Your task to perform on an android device: open the mobile data screen to see how much data has been used Image 0: 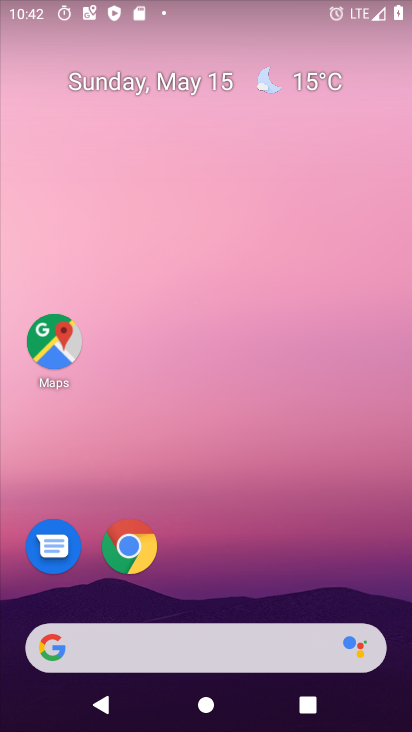
Step 0: drag from (296, 690) to (222, 153)
Your task to perform on an android device: open the mobile data screen to see how much data has been used Image 1: 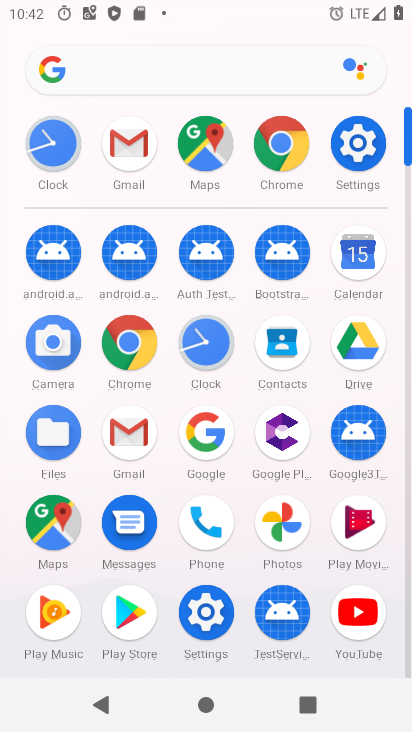
Step 1: click (354, 143)
Your task to perform on an android device: open the mobile data screen to see how much data has been used Image 2: 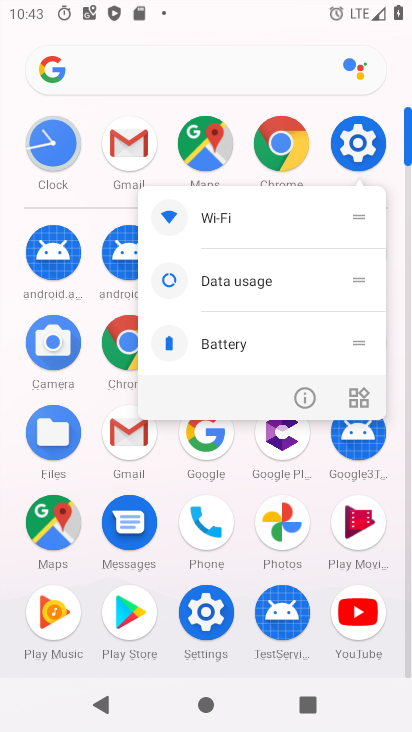
Step 2: click (350, 142)
Your task to perform on an android device: open the mobile data screen to see how much data has been used Image 3: 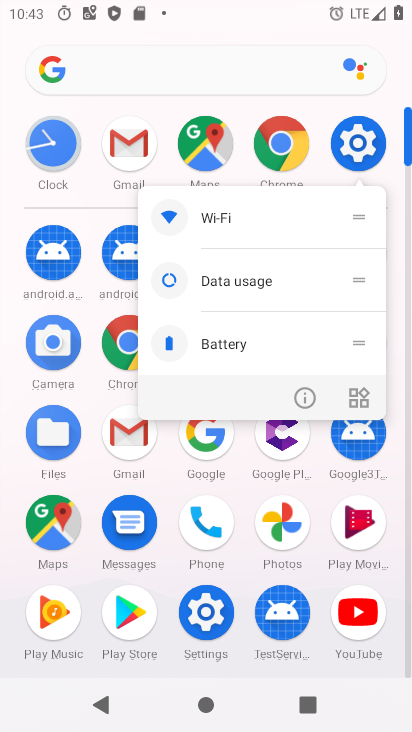
Step 3: click (358, 142)
Your task to perform on an android device: open the mobile data screen to see how much data has been used Image 4: 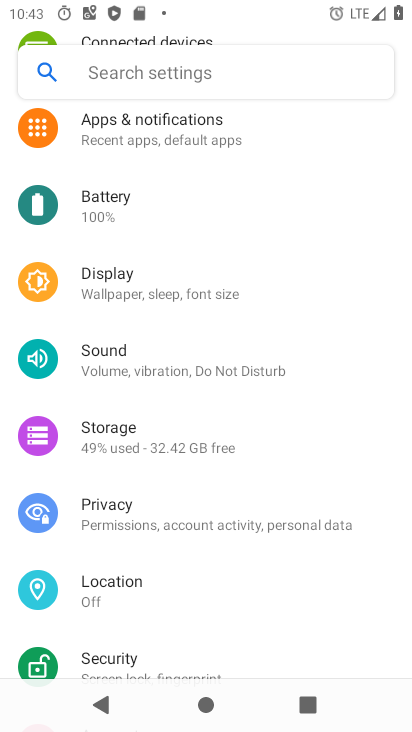
Step 4: click (360, 142)
Your task to perform on an android device: open the mobile data screen to see how much data has been used Image 5: 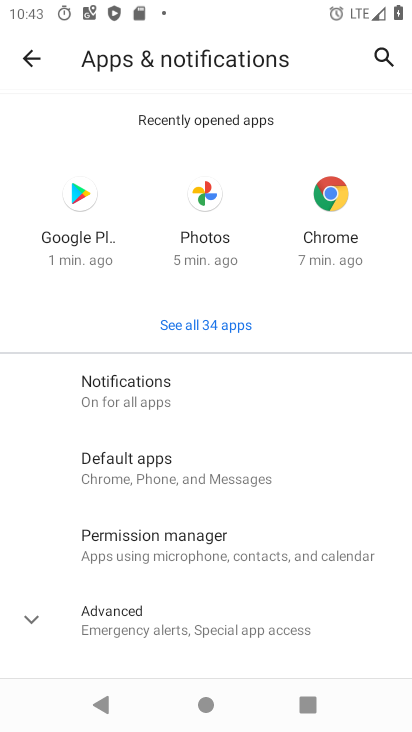
Step 5: click (22, 54)
Your task to perform on an android device: open the mobile data screen to see how much data has been used Image 6: 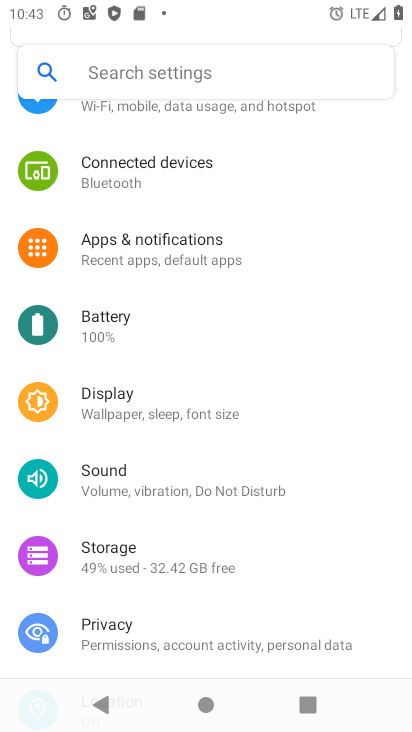
Step 6: drag from (191, 198) to (228, 406)
Your task to perform on an android device: open the mobile data screen to see how much data has been used Image 7: 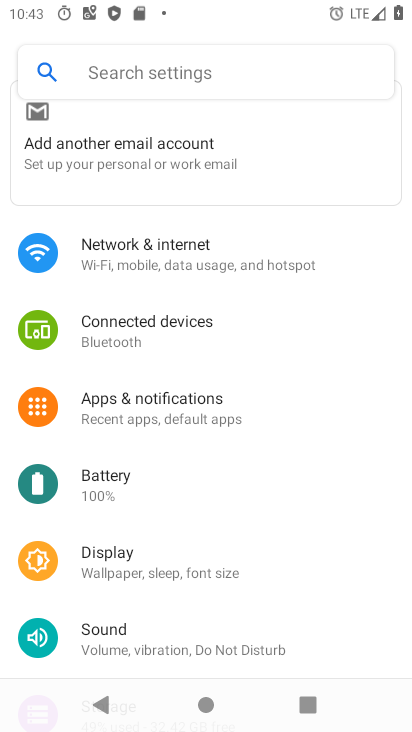
Step 7: click (162, 254)
Your task to perform on an android device: open the mobile data screen to see how much data has been used Image 8: 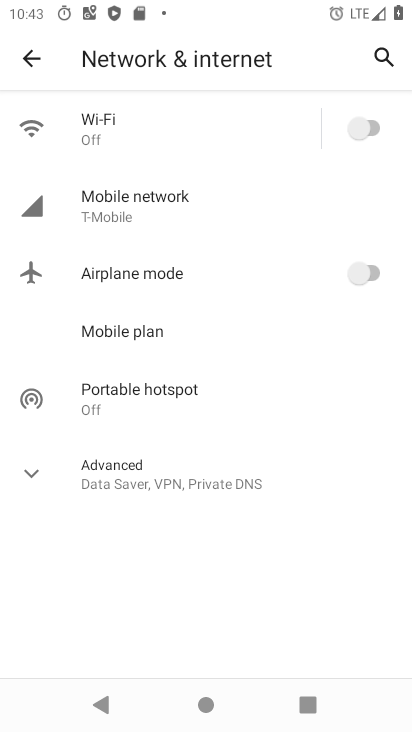
Step 8: click (363, 128)
Your task to perform on an android device: open the mobile data screen to see how much data has been used Image 9: 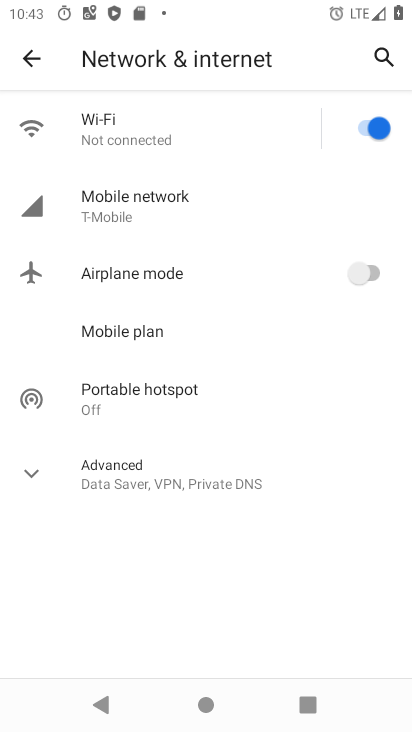
Step 9: task complete